Your task to perform on an android device: Open calendar and show me the first week of next month Image 0: 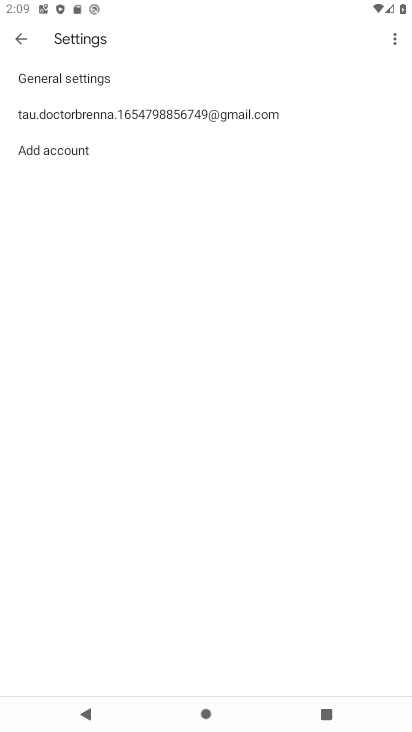
Step 0: press back button
Your task to perform on an android device: Open calendar and show me the first week of next month Image 1: 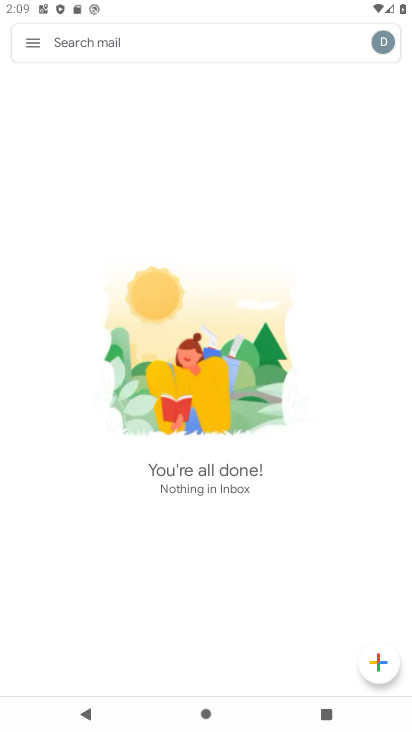
Step 1: press back button
Your task to perform on an android device: Open calendar and show me the first week of next month Image 2: 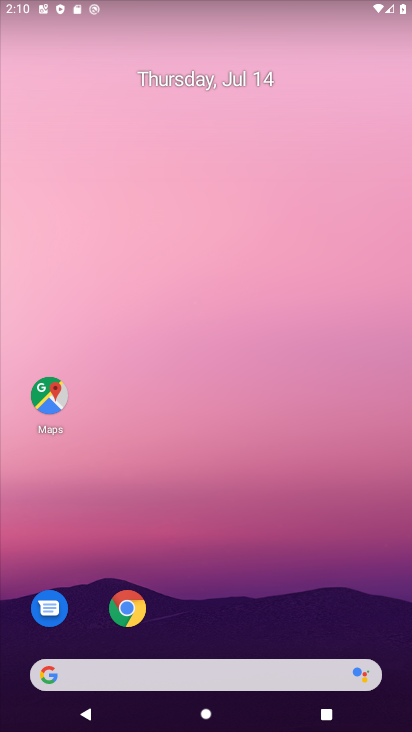
Step 2: drag from (258, 590) to (304, 5)
Your task to perform on an android device: Open calendar and show me the first week of next month Image 3: 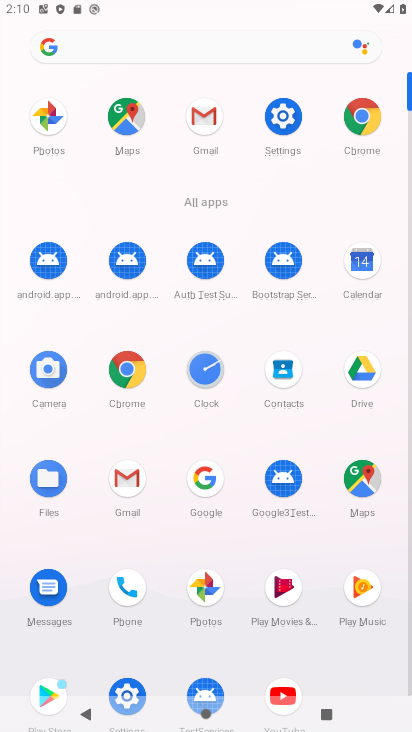
Step 3: click (357, 273)
Your task to perform on an android device: Open calendar and show me the first week of next month Image 4: 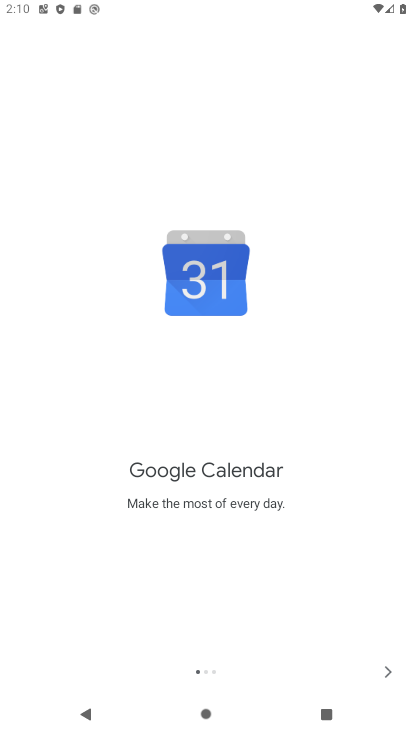
Step 4: click (387, 673)
Your task to perform on an android device: Open calendar and show me the first week of next month Image 5: 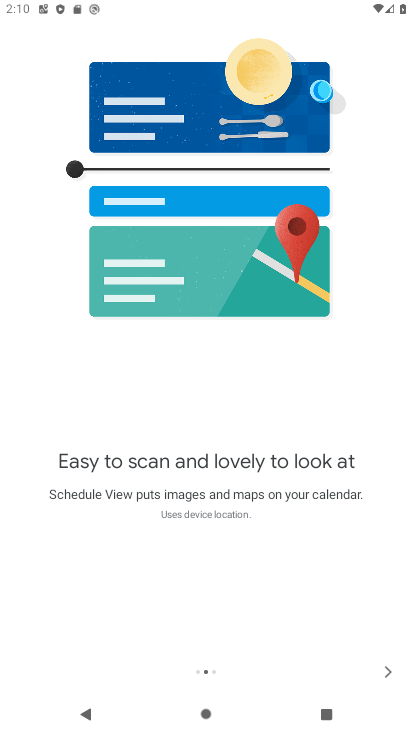
Step 5: click (377, 671)
Your task to perform on an android device: Open calendar and show me the first week of next month Image 6: 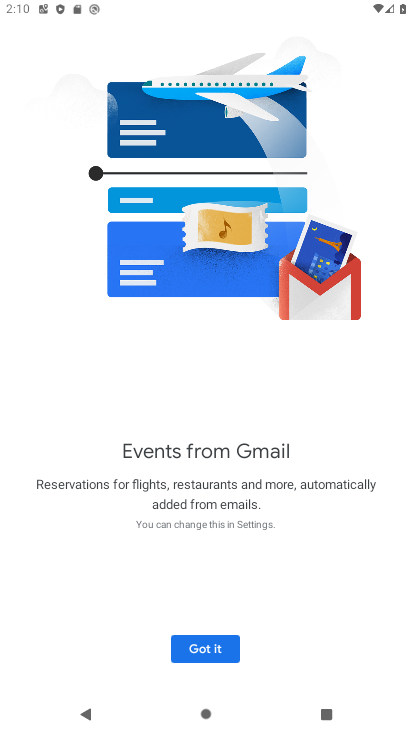
Step 6: click (210, 649)
Your task to perform on an android device: Open calendar and show me the first week of next month Image 7: 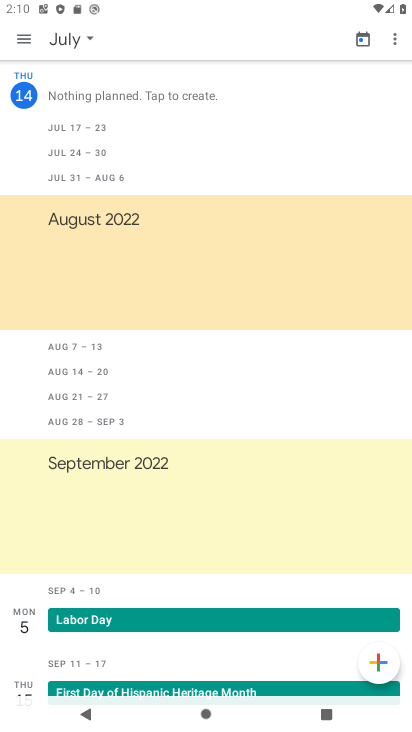
Step 7: click (48, 37)
Your task to perform on an android device: Open calendar and show me the first week of next month Image 8: 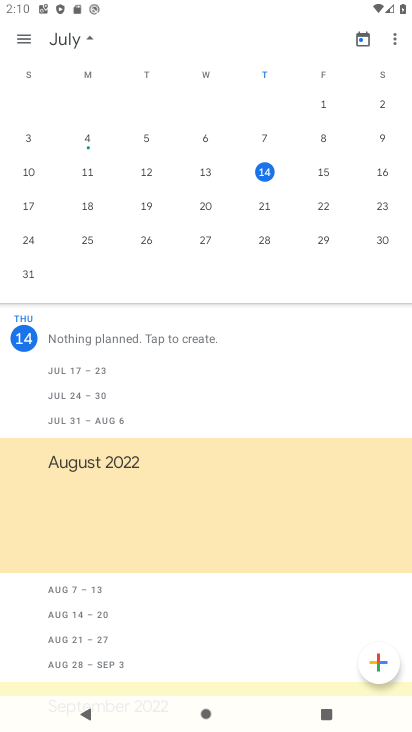
Step 8: drag from (357, 201) to (60, 182)
Your task to perform on an android device: Open calendar and show me the first week of next month Image 9: 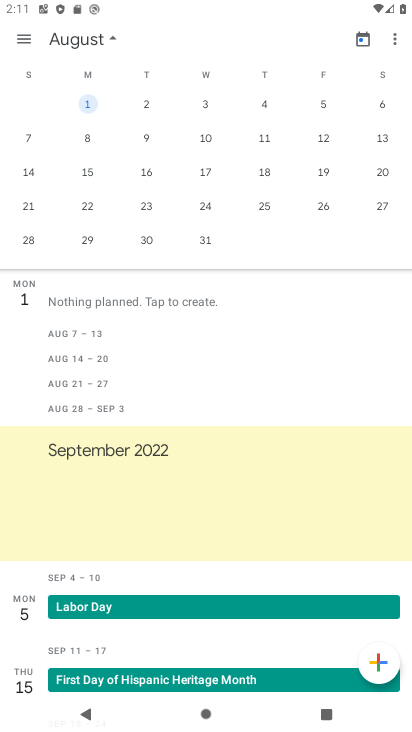
Step 9: click (89, 105)
Your task to perform on an android device: Open calendar and show me the first week of next month Image 10: 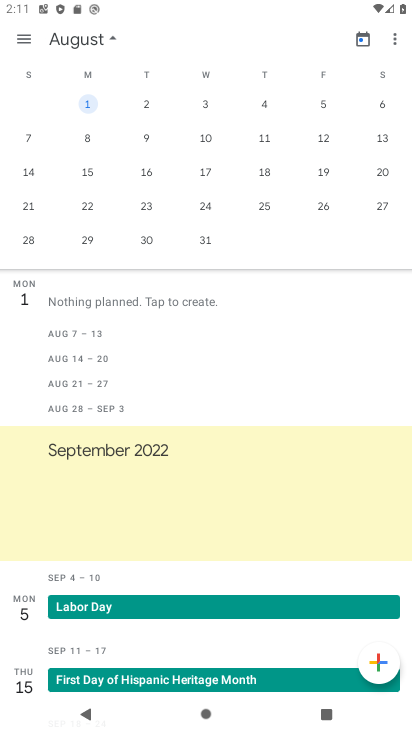
Step 10: task complete